Your task to perform on an android device: install app "Google Keep" Image 0: 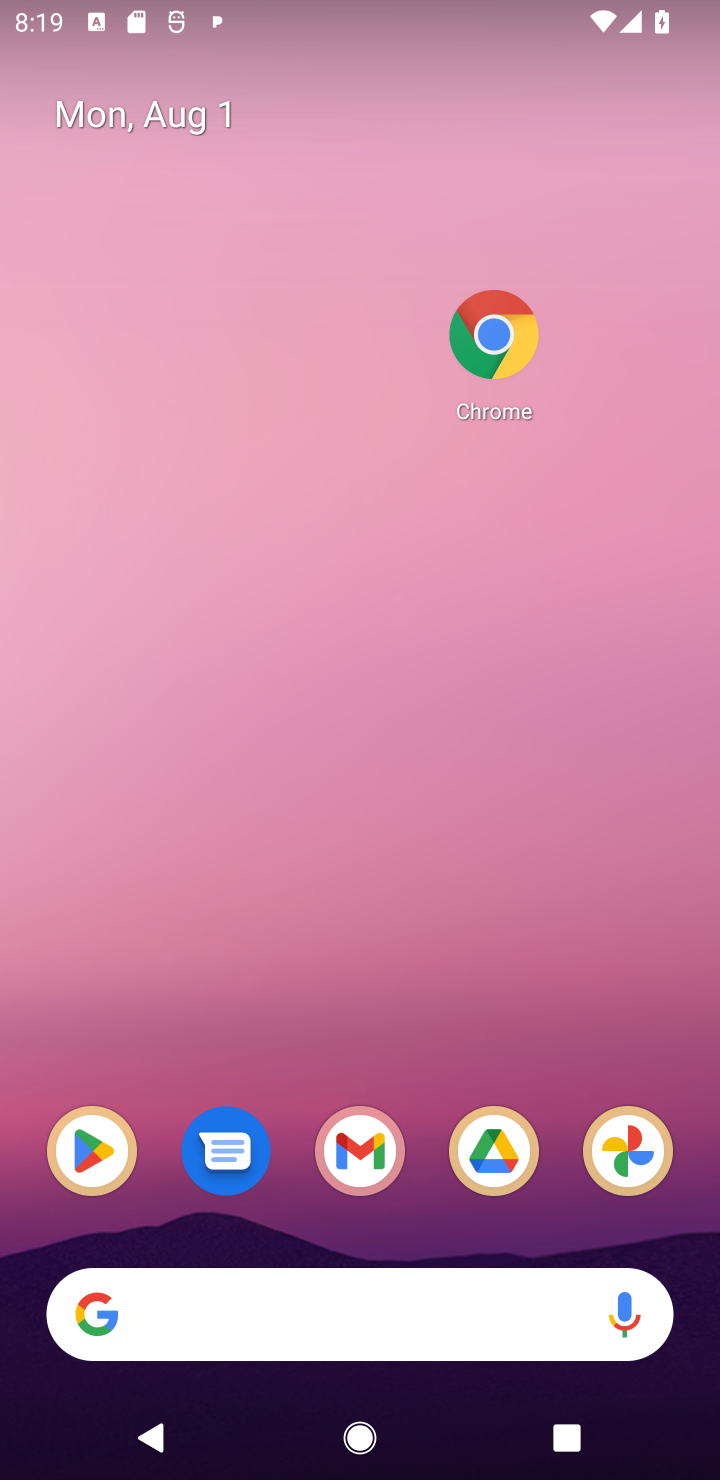
Step 0: click (100, 1145)
Your task to perform on an android device: install app "Google Keep" Image 1: 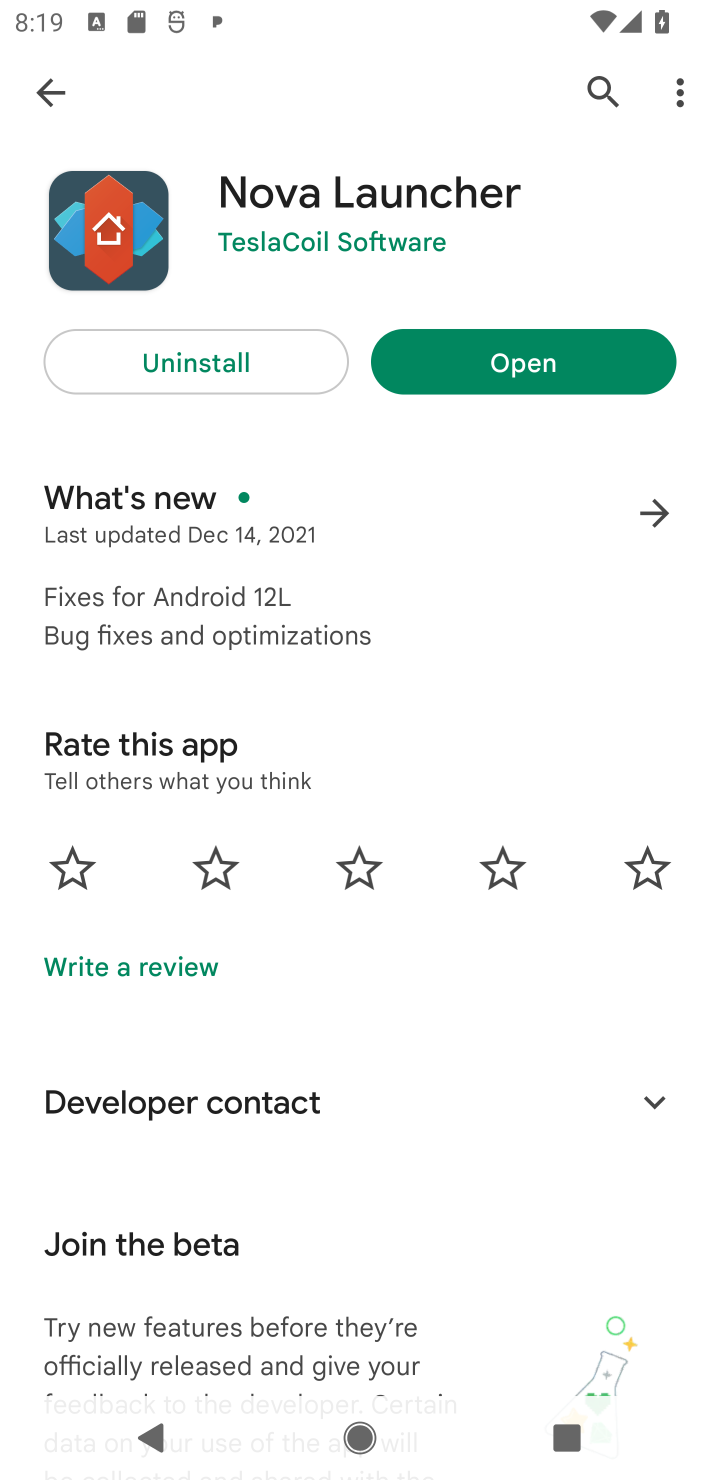
Step 1: click (603, 88)
Your task to perform on an android device: install app "Google Keep" Image 2: 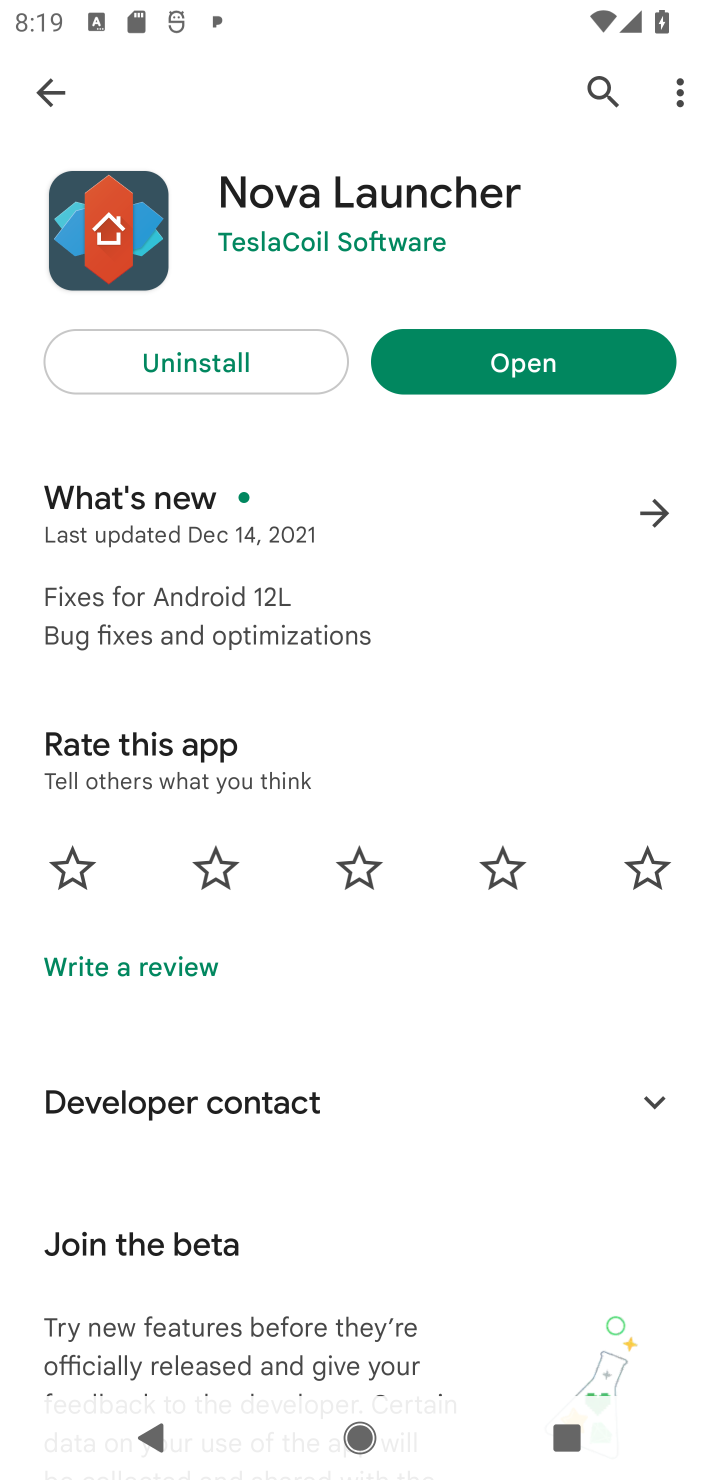
Step 2: click (598, 91)
Your task to perform on an android device: install app "Google Keep" Image 3: 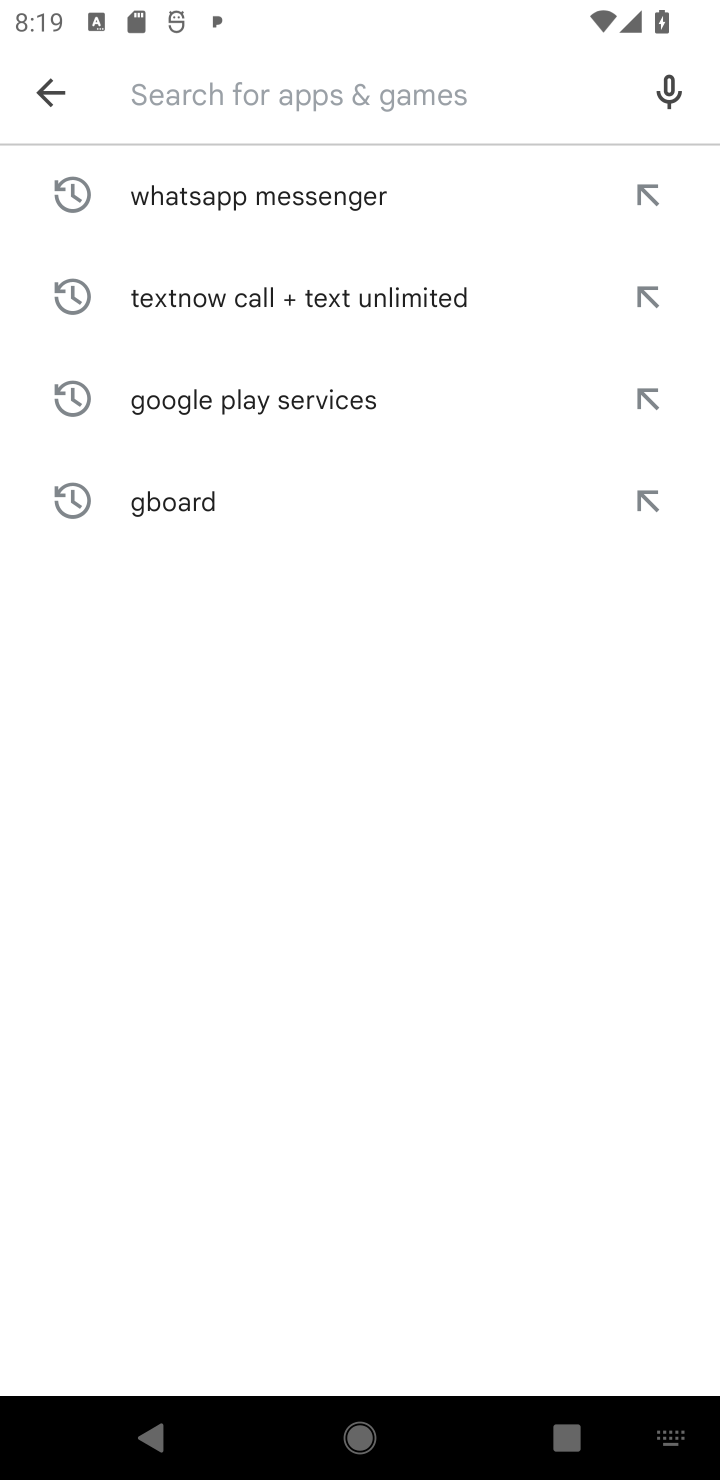
Step 3: type "Google Keep"
Your task to perform on an android device: install app "Google Keep" Image 4: 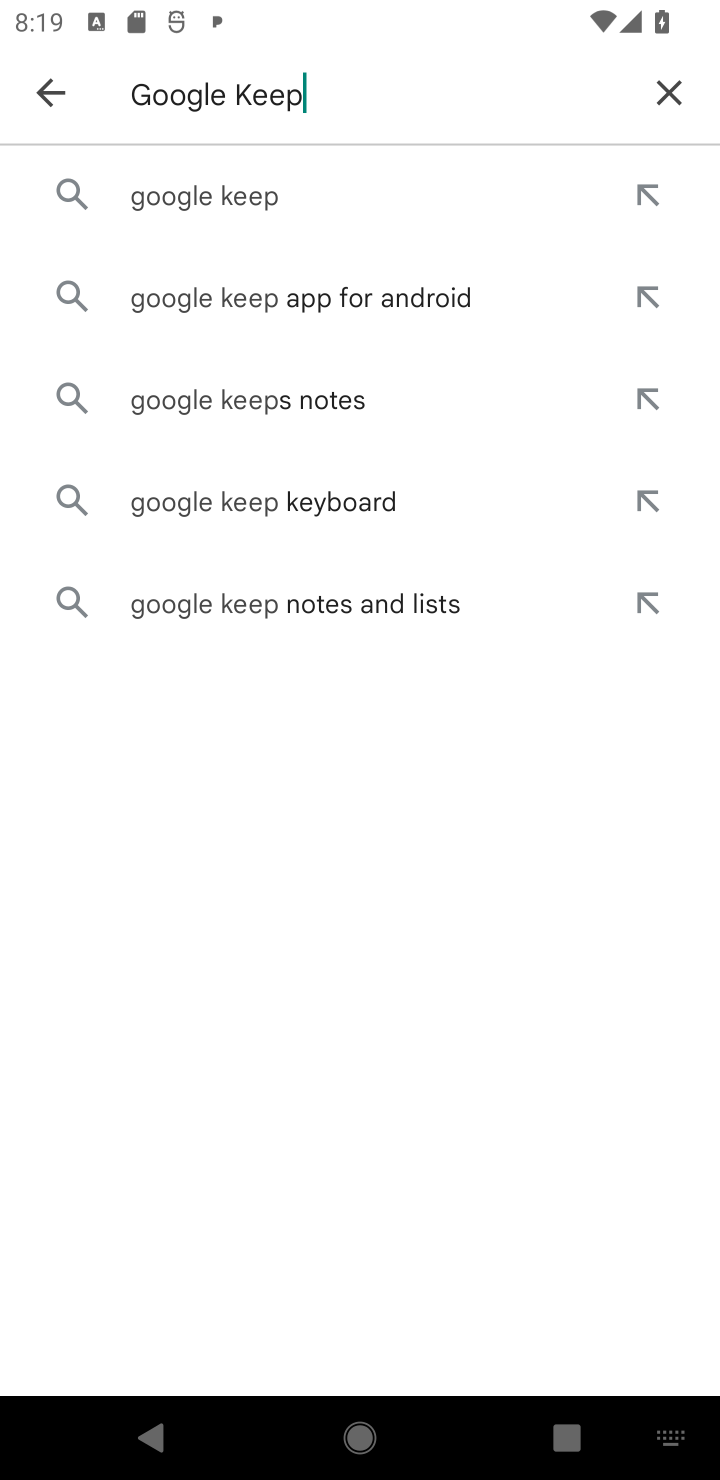
Step 4: click (233, 198)
Your task to perform on an android device: install app "Google Keep" Image 5: 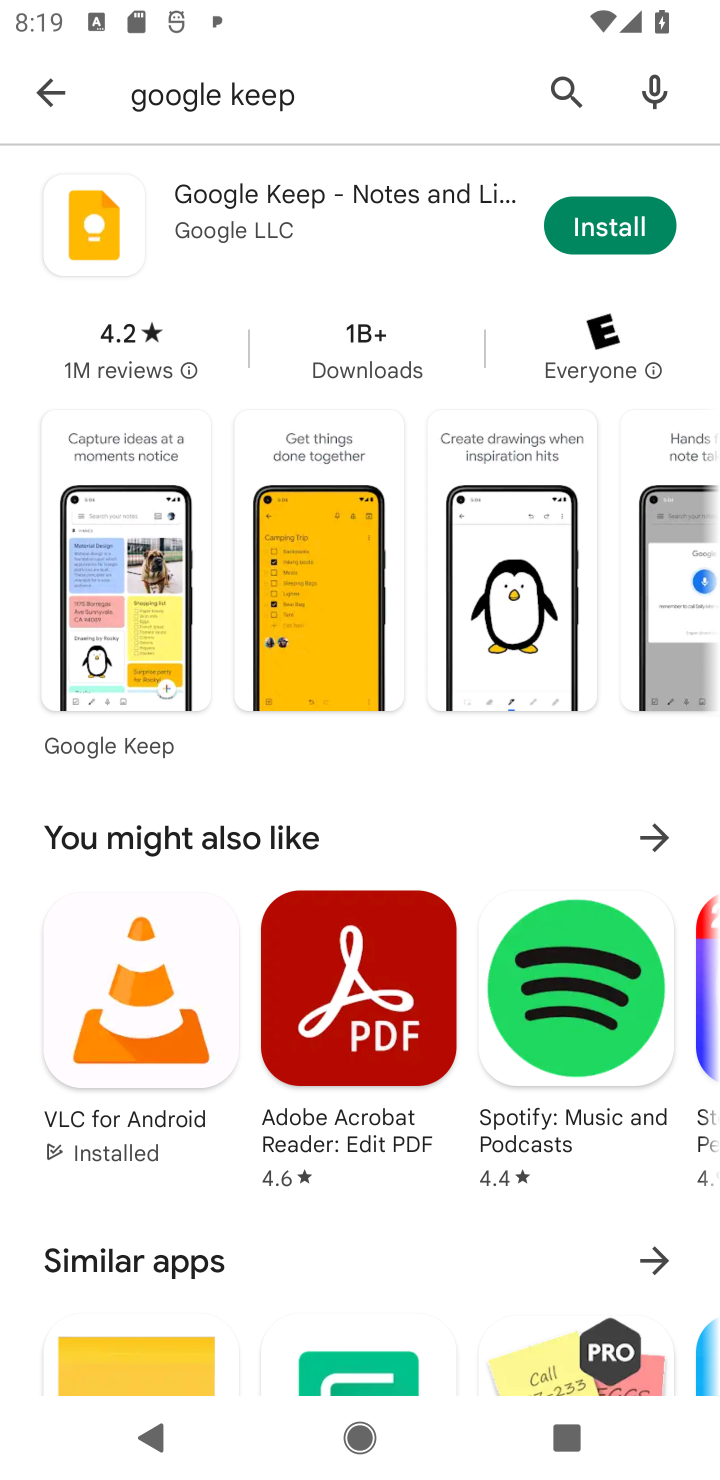
Step 5: click (624, 223)
Your task to perform on an android device: install app "Google Keep" Image 6: 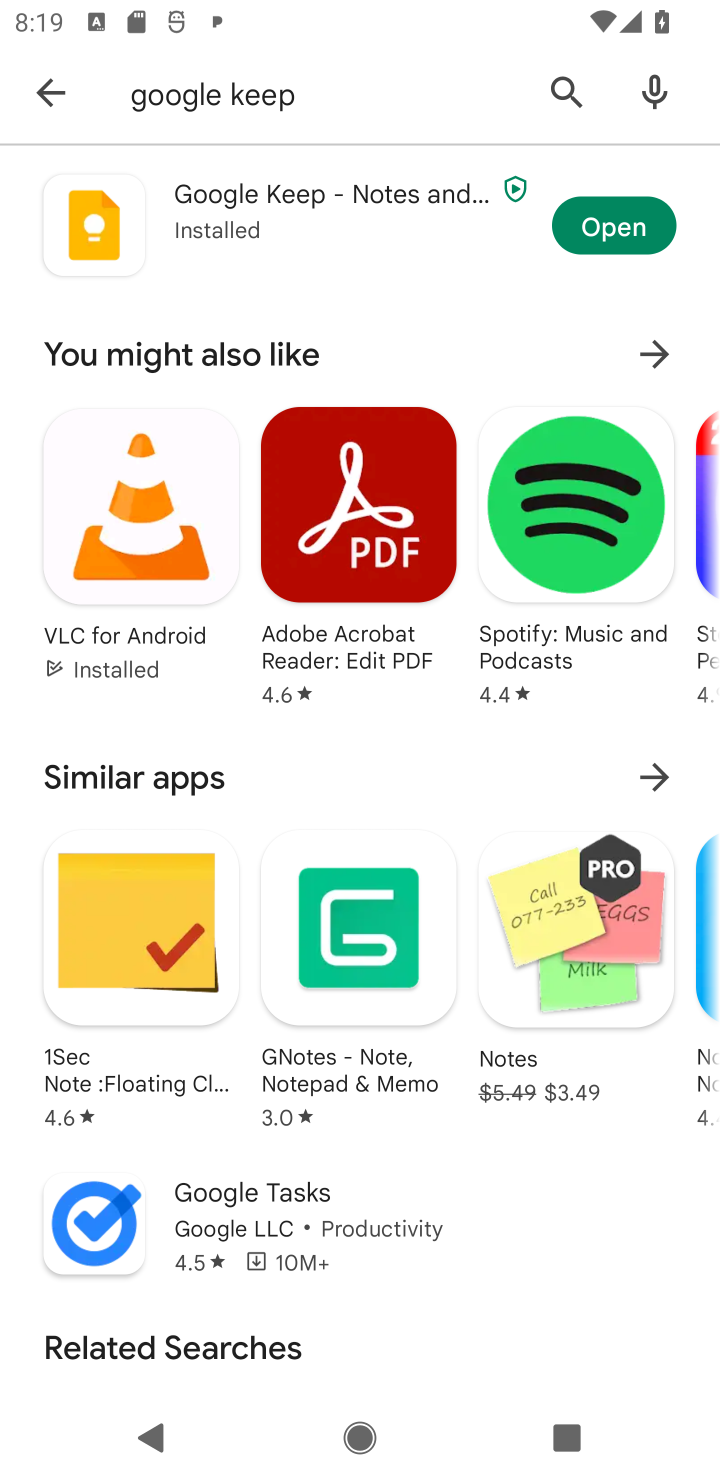
Step 6: task complete